Your task to perform on an android device: turn pop-ups off in chrome Image 0: 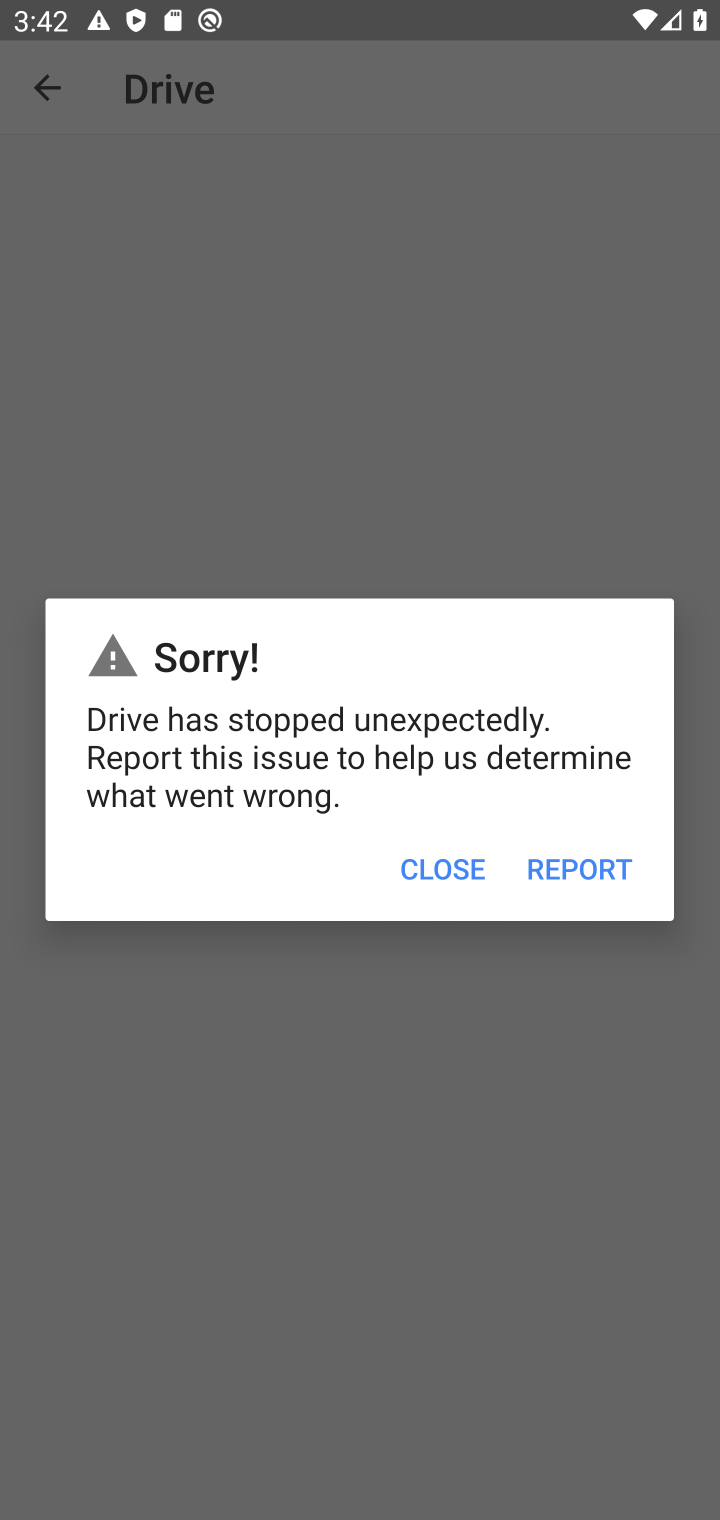
Step 0: press home button
Your task to perform on an android device: turn pop-ups off in chrome Image 1: 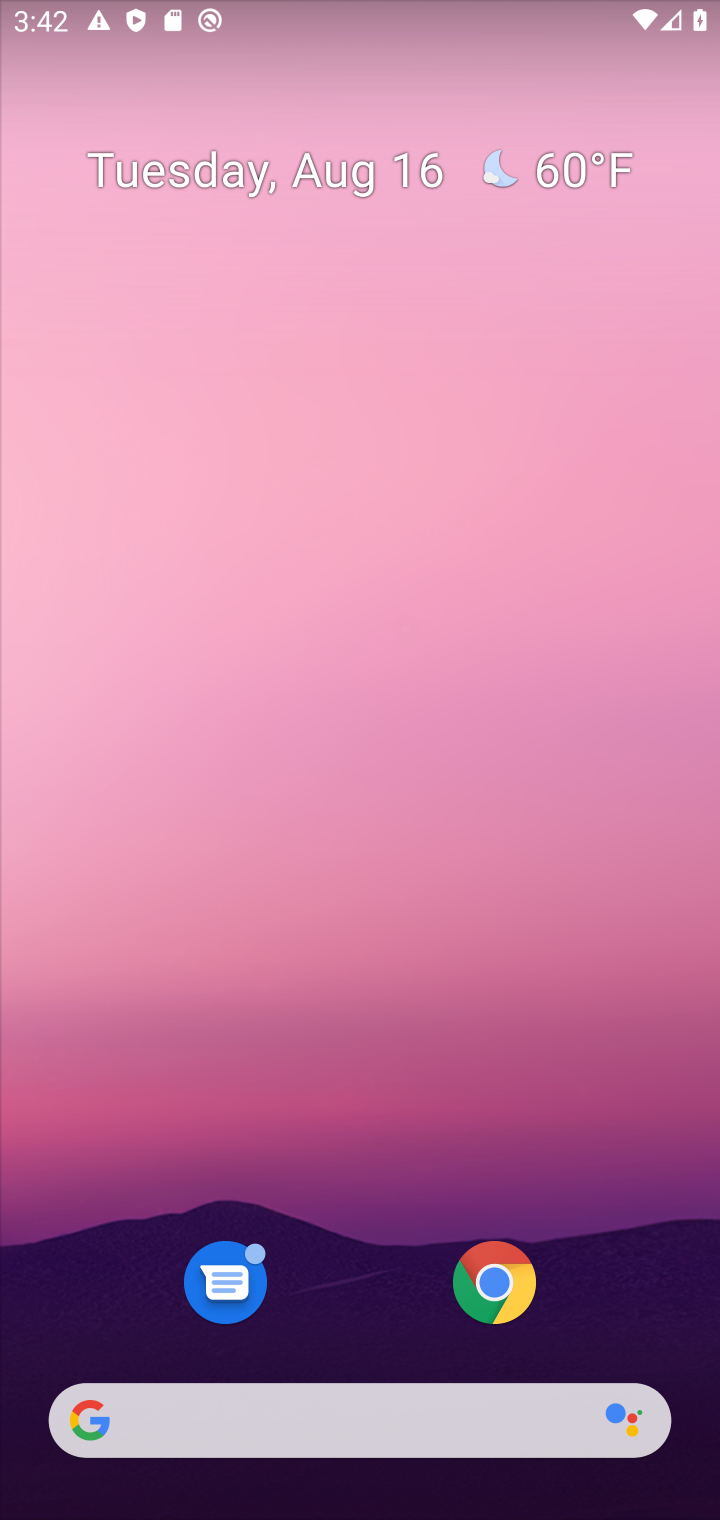
Step 1: click (487, 1304)
Your task to perform on an android device: turn pop-ups off in chrome Image 2: 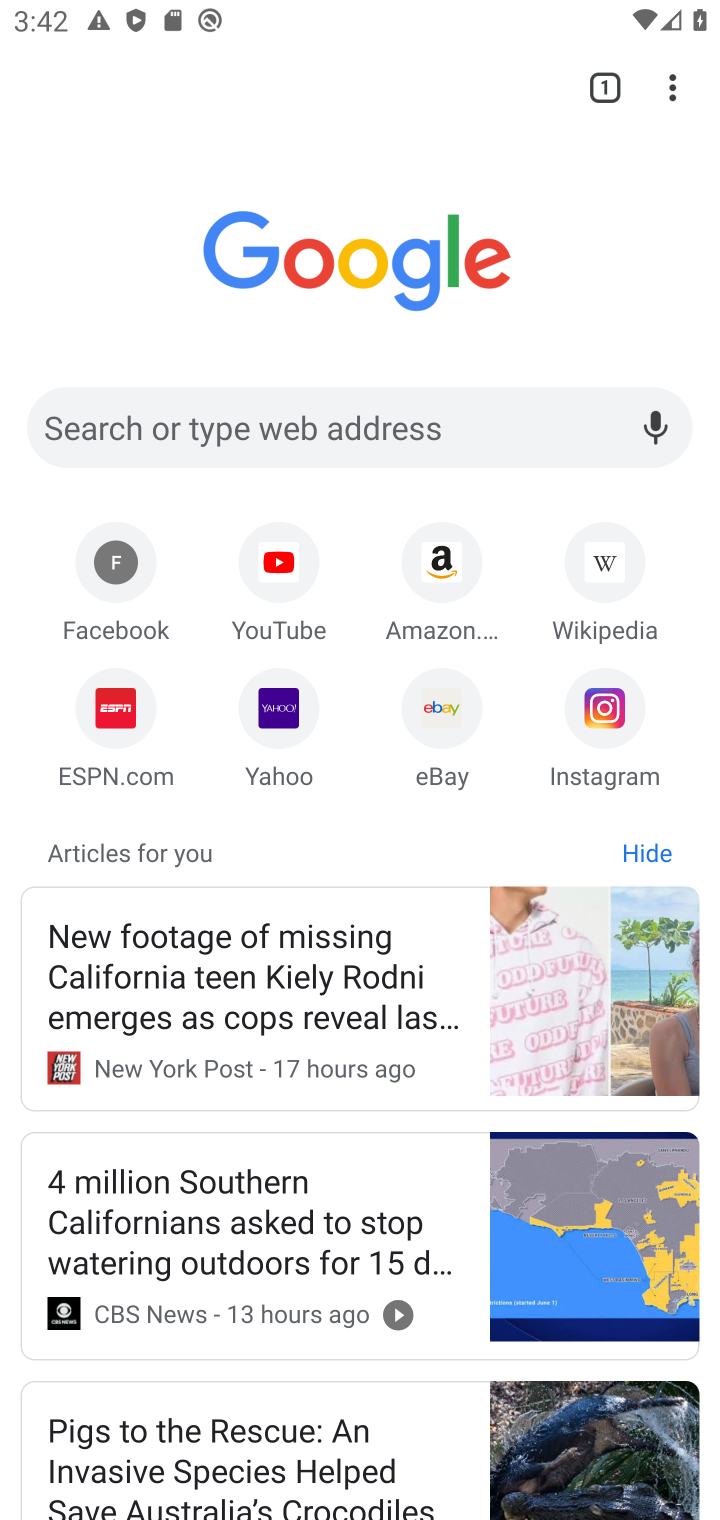
Step 2: drag from (675, 93) to (393, 752)
Your task to perform on an android device: turn pop-ups off in chrome Image 3: 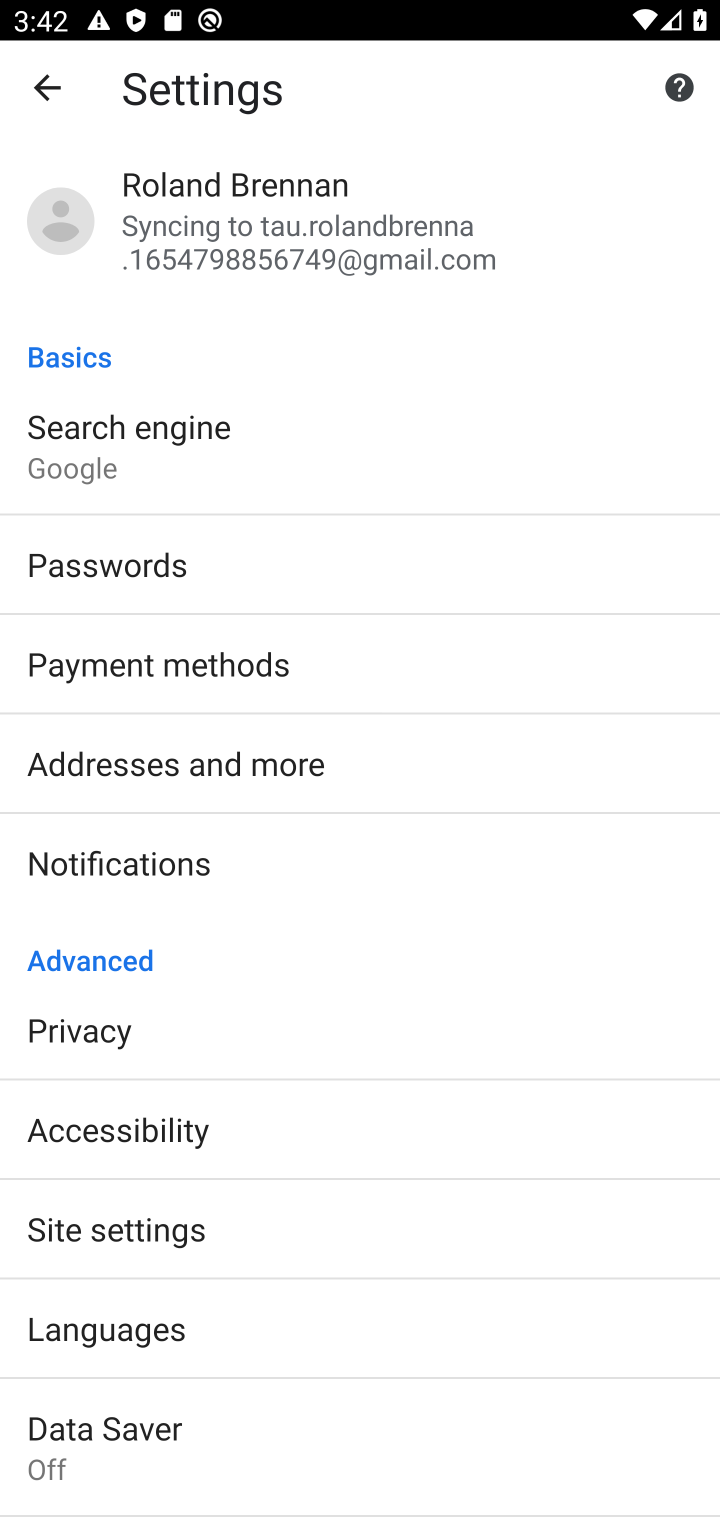
Step 3: click (140, 1211)
Your task to perform on an android device: turn pop-ups off in chrome Image 4: 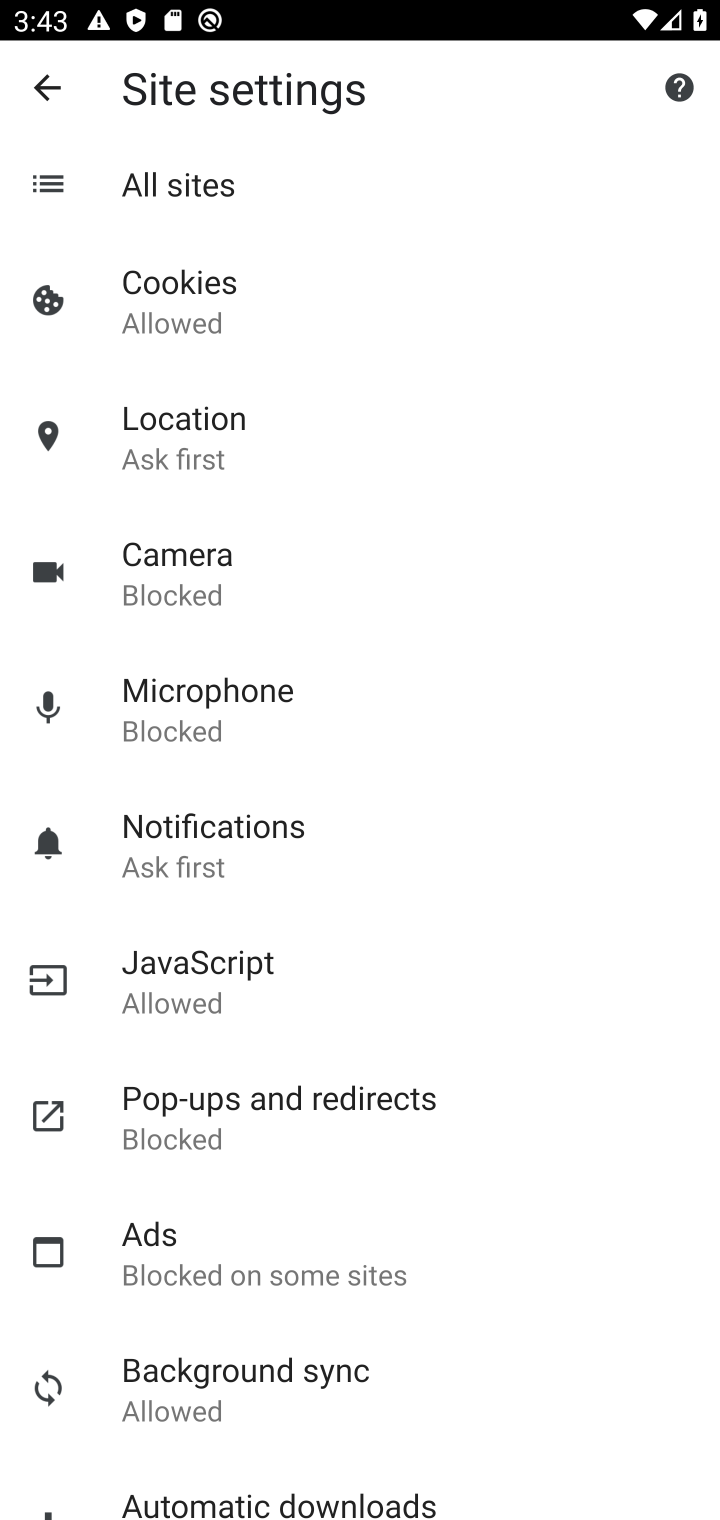
Step 4: click (244, 1116)
Your task to perform on an android device: turn pop-ups off in chrome Image 5: 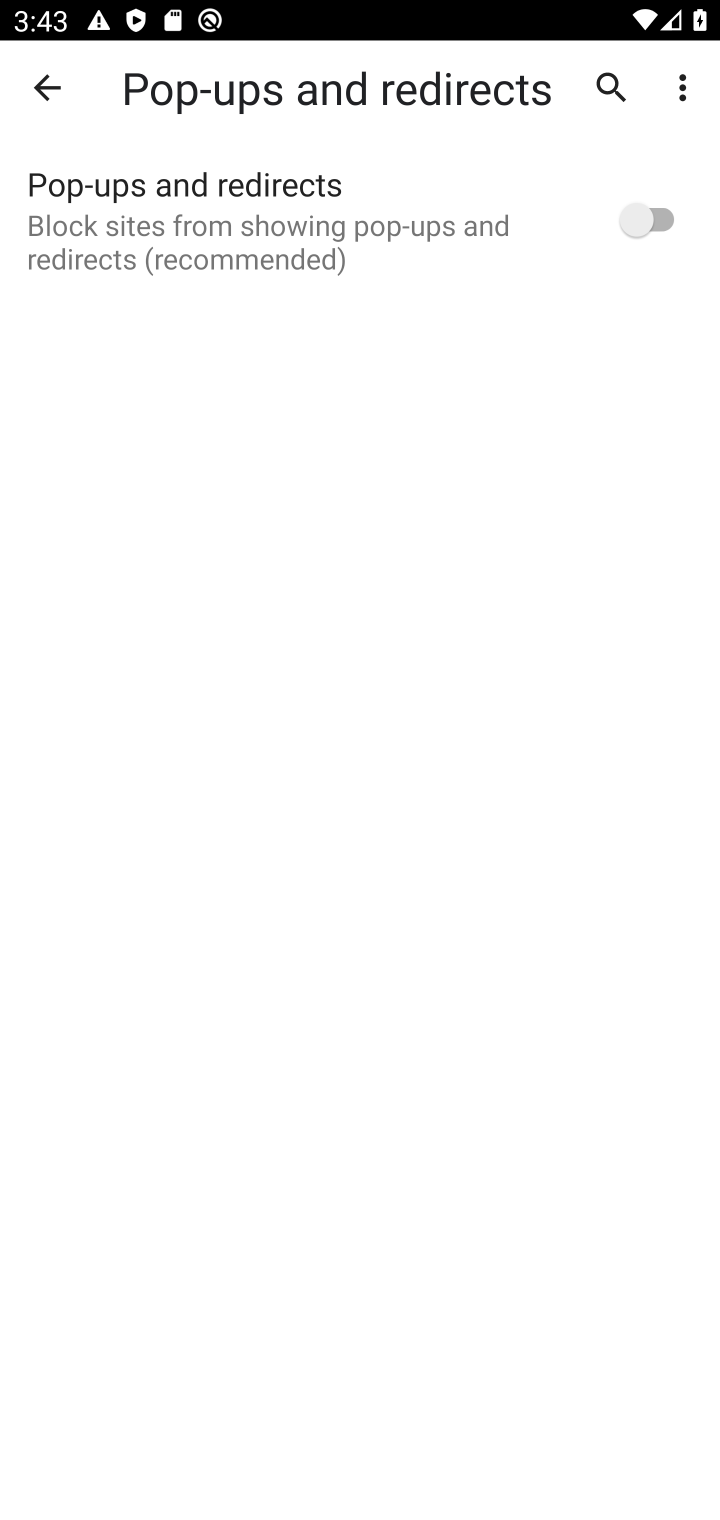
Step 5: task complete